Your task to perform on an android device: turn on location history Image 0: 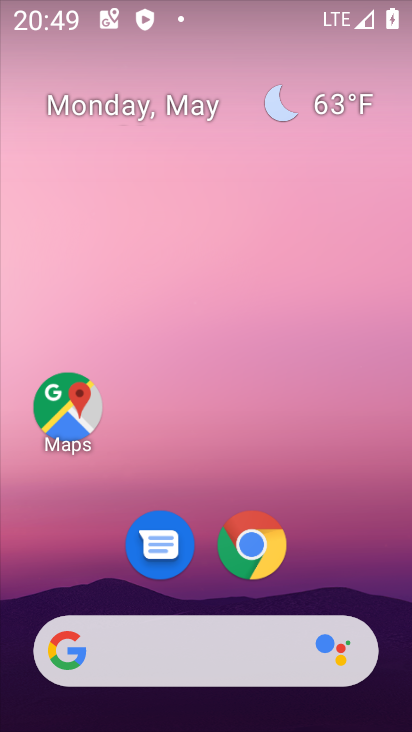
Step 0: drag from (184, 633) to (245, 88)
Your task to perform on an android device: turn on location history Image 1: 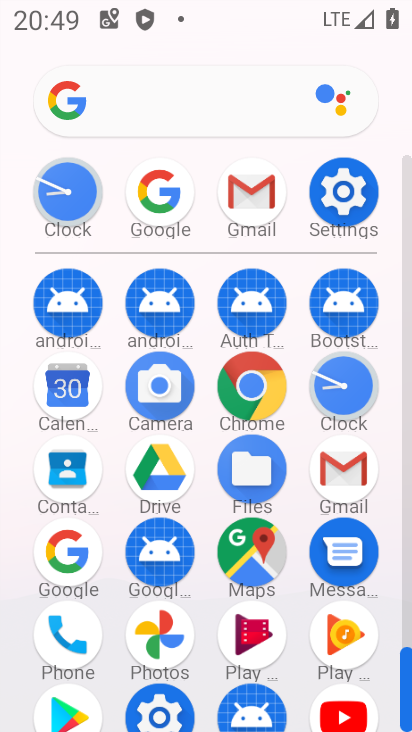
Step 1: click (337, 202)
Your task to perform on an android device: turn on location history Image 2: 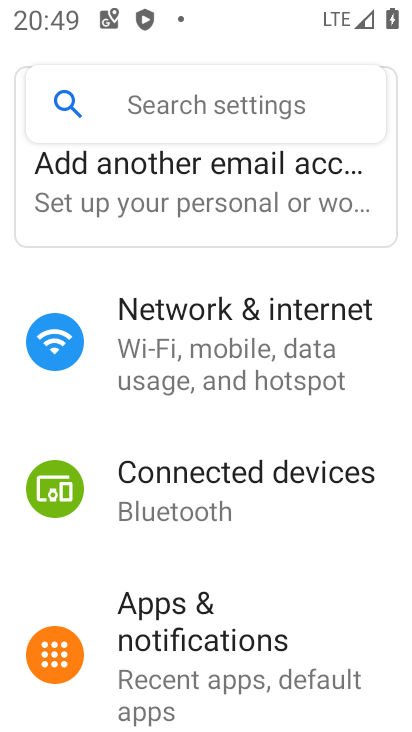
Step 2: drag from (143, 561) to (205, 99)
Your task to perform on an android device: turn on location history Image 3: 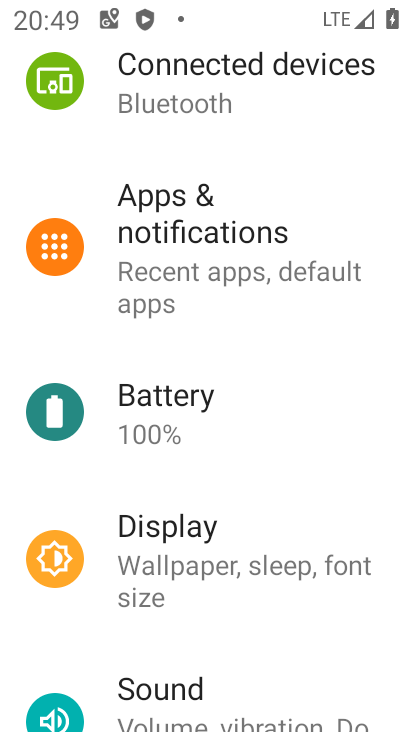
Step 3: drag from (183, 523) to (178, 107)
Your task to perform on an android device: turn on location history Image 4: 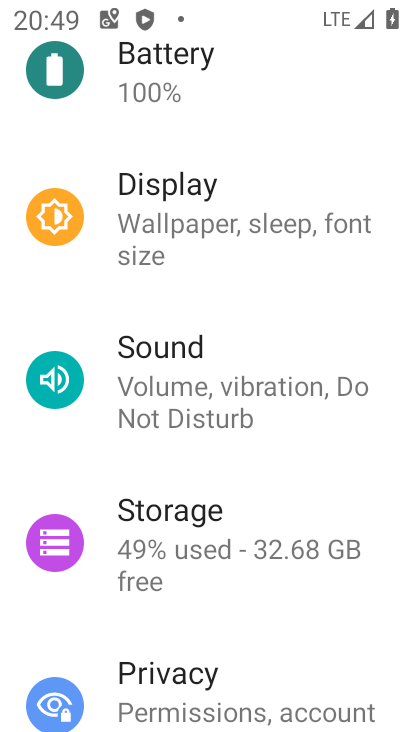
Step 4: drag from (154, 568) to (184, 182)
Your task to perform on an android device: turn on location history Image 5: 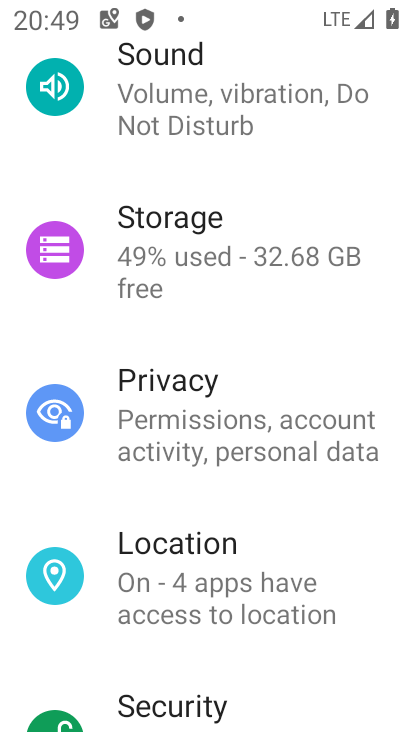
Step 5: click (170, 585)
Your task to perform on an android device: turn on location history Image 6: 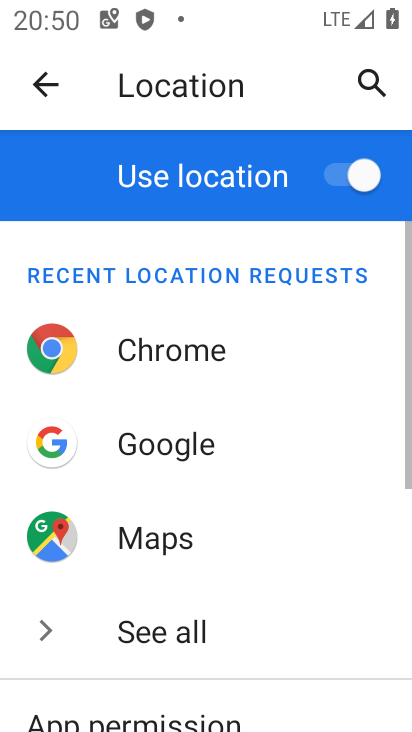
Step 6: drag from (176, 613) to (146, 320)
Your task to perform on an android device: turn on location history Image 7: 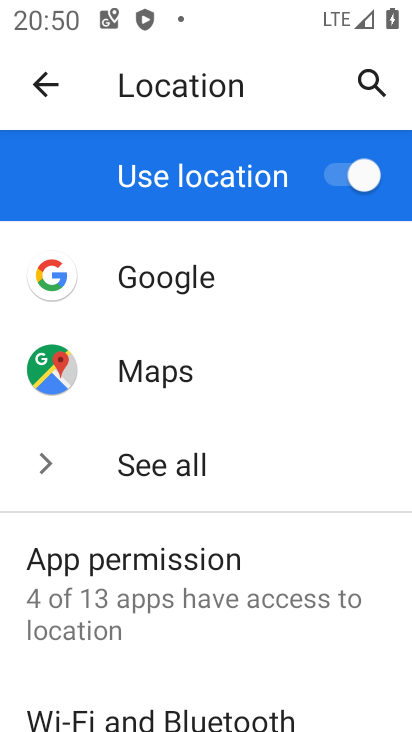
Step 7: drag from (177, 607) to (191, 271)
Your task to perform on an android device: turn on location history Image 8: 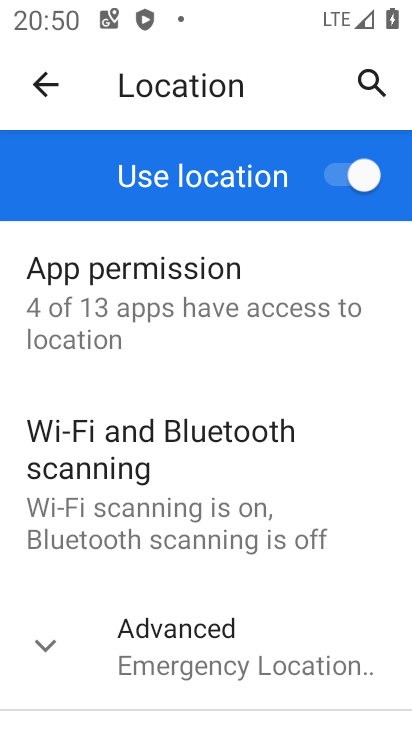
Step 8: click (213, 634)
Your task to perform on an android device: turn on location history Image 9: 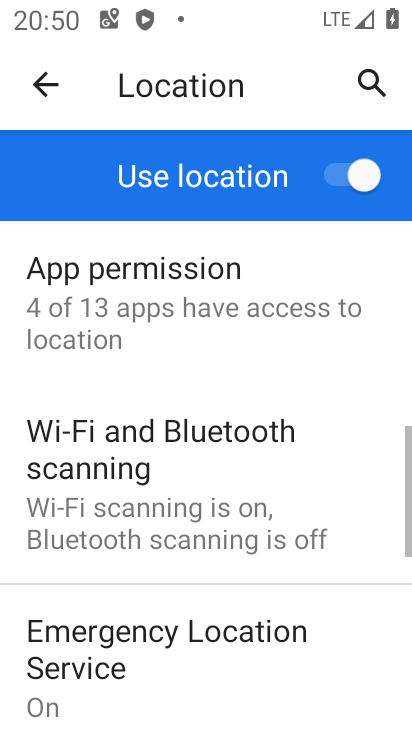
Step 9: drag from (213, 634) to (250, 157)
Your task to perform on an android device: turn on location history Image 10: 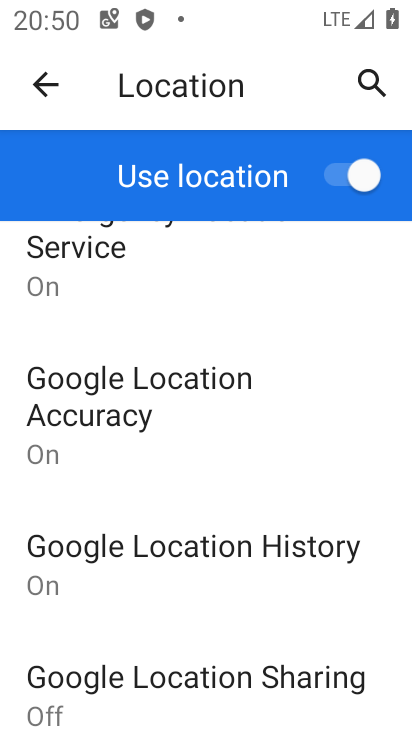
Step 10: click (215, 535)
Your task to perform on an android device: turn on location history Image 11: 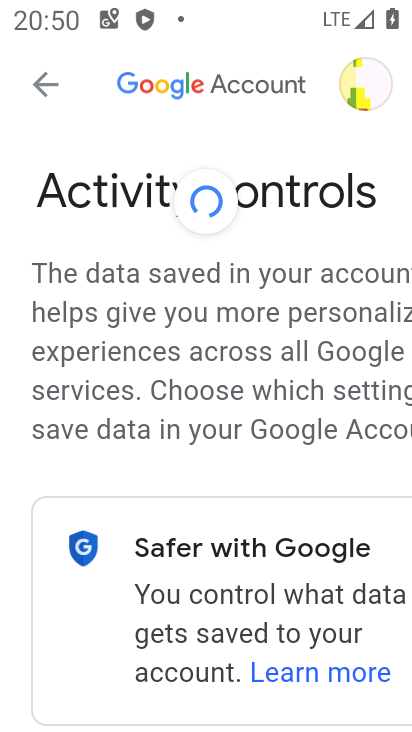
Step 11: drag from (359, 485) to (209, 196)
Your task to perform on an android device: turn on location history Image 12: 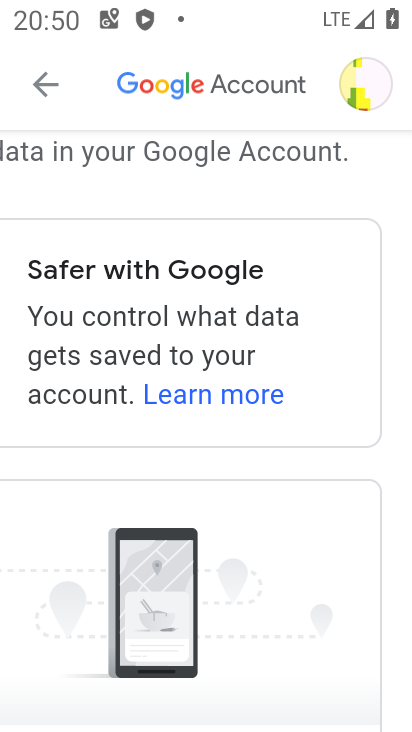
Step 12: drag from (373, 637) to (272, 353)
Your task to perform on an android device: turn on location history Image 13: 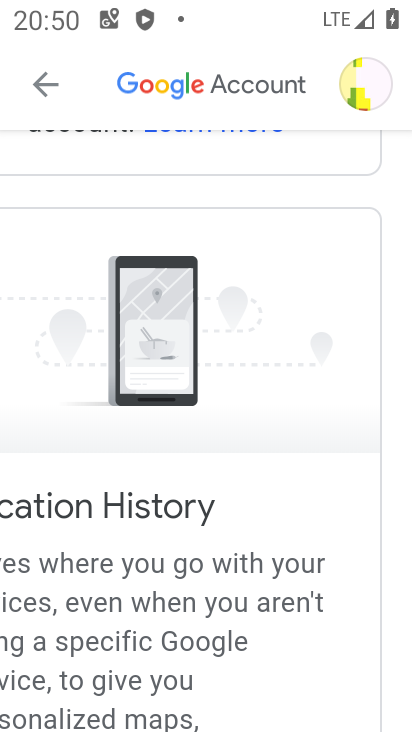
Step 13: drag from (289, 644) to (252, 256)
Your task to perform on an android device: turn on location history Image 14: 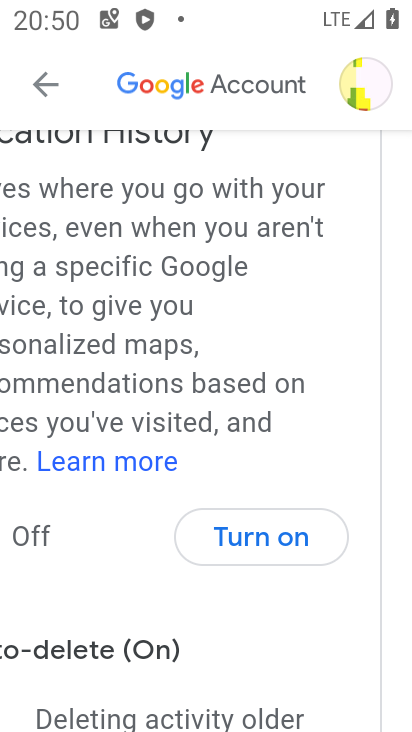
Step 14: click (273, 555)
Your task to perform on an android device: turn on location history Image 15: 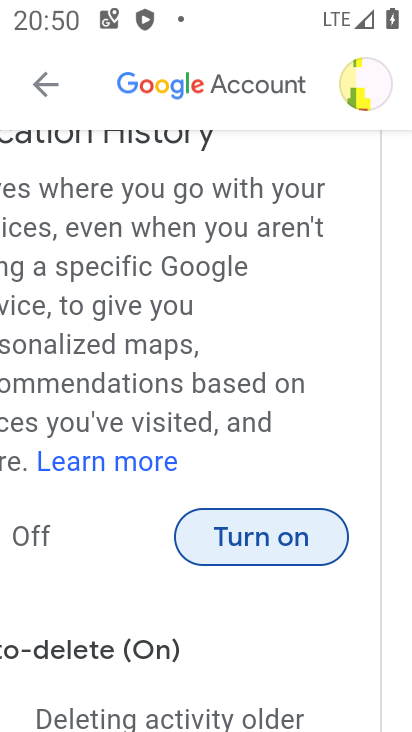
Step 15: click (258, 563)
Your task to perform on an android device: turn on location history Image 16: 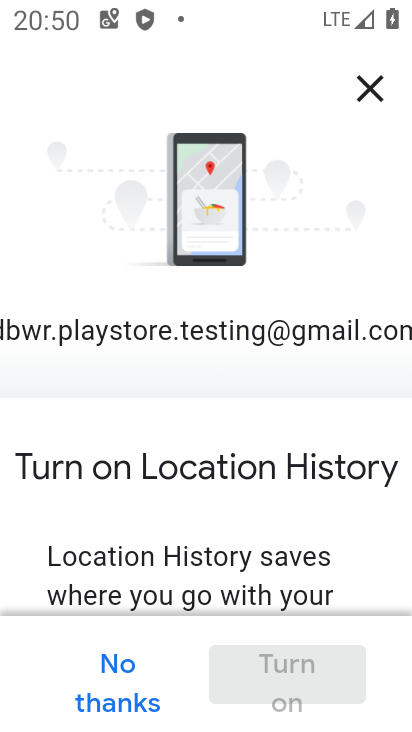
Step 16: drag from (255, 562) to (274, 24)
Your task to perform on an android device: turn on location history Image 17: 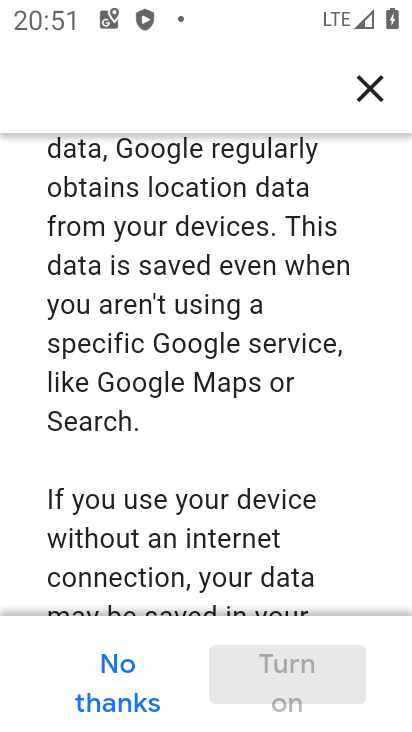
Step 17: drag from (354, 560) to (255, 15)
Your task to perform on an android device: turn on location history Image 18: 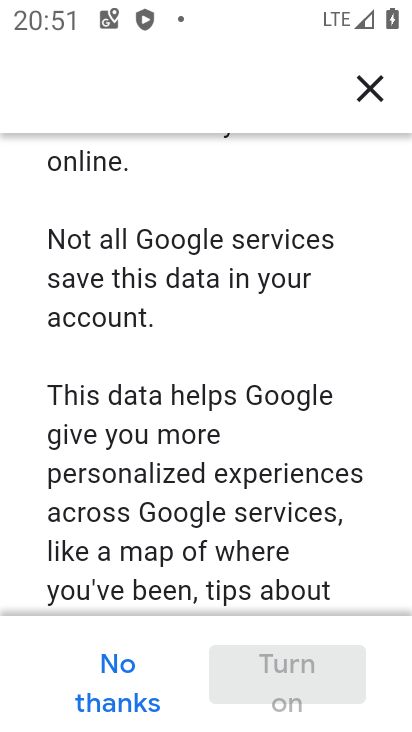
Step 18: drag from (336, 559) to (231, 100)
Your task to perform on an android device: turn on location history Image 19: 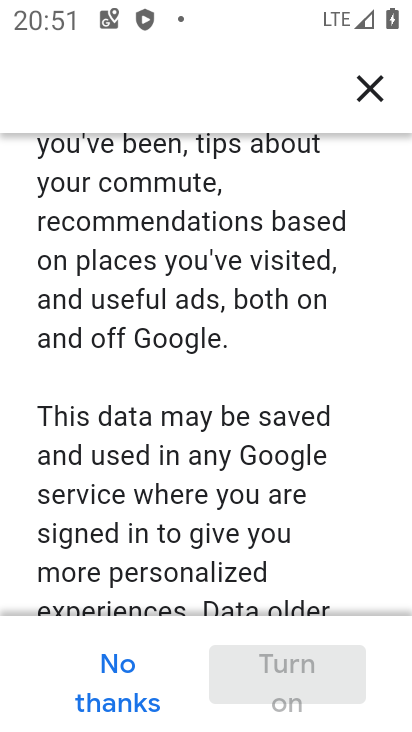
Step 19: drag from (307, 595) to (219, 219)
Your task to perform on an android device: turn on location history Image 20: 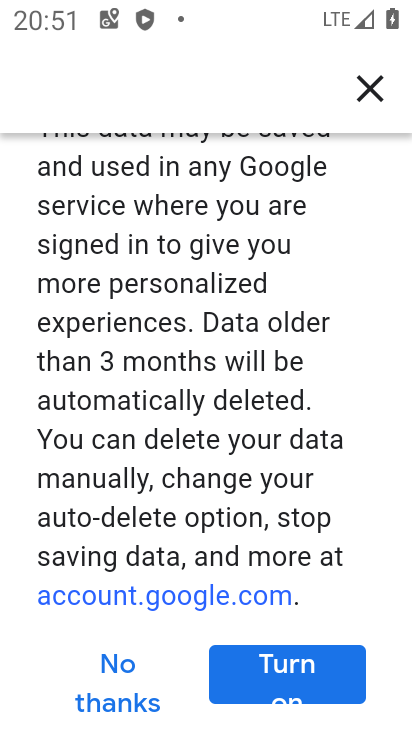
Step 20: click (270, 686)
Your task to perform on an android device: turn on location history Image 21: 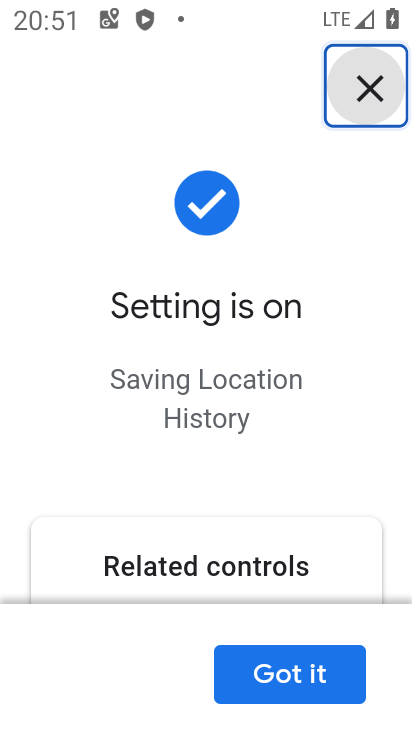
Step 21: click (270, 686)
Your task to perform on an android device: turn on location history Image 22: 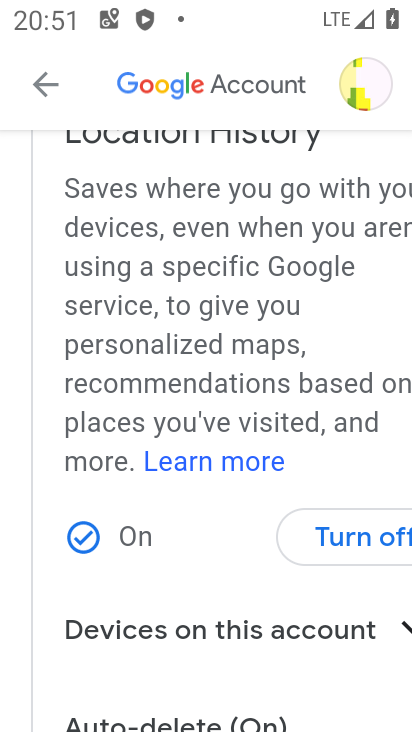
Step 22: task complete